Your task to perform on an android device: Turn on the flashlight Image 0: 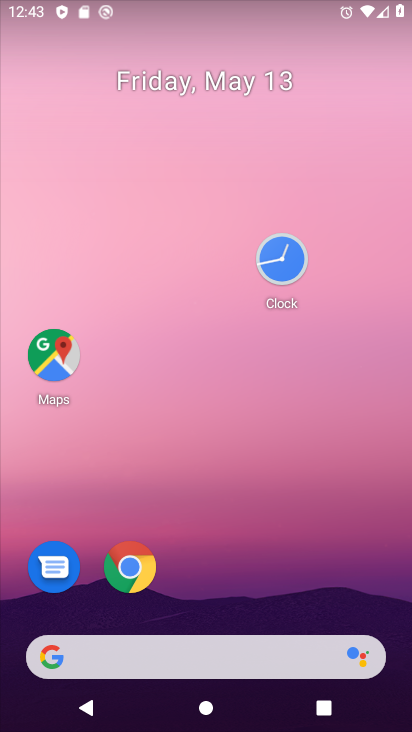
Step 0: click (249, 99)
Your task to perform on an android device: Turn on the flashlight Image 1: 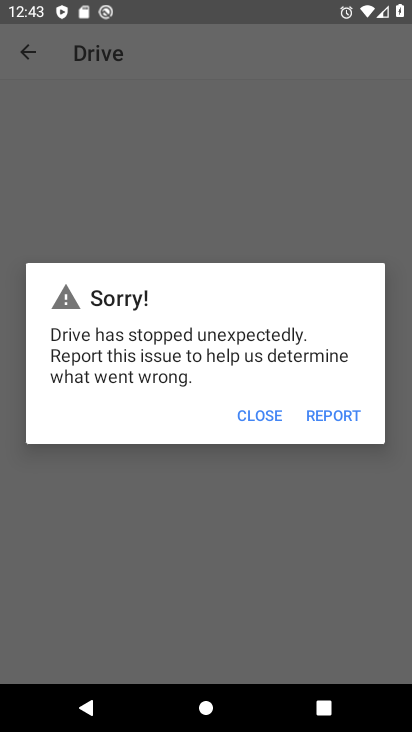
Step 1: press home button
Your task to perform on an android device: Turn on the flashlight Image 2: 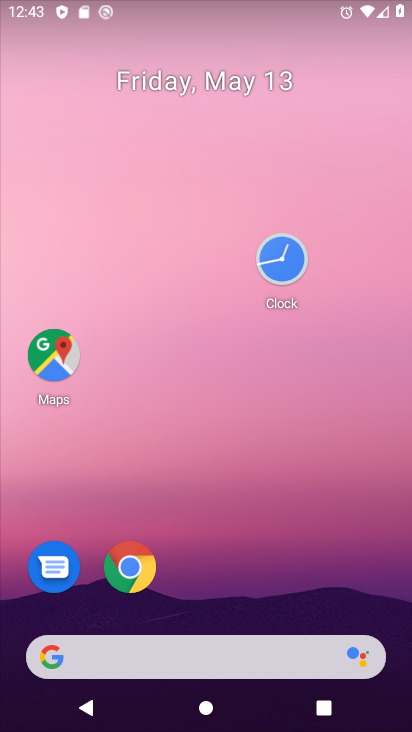
Step 2: drag from (282, 556) to (276, 33)
Your task to perform on an android device: Turn on the flashlight Image 3: 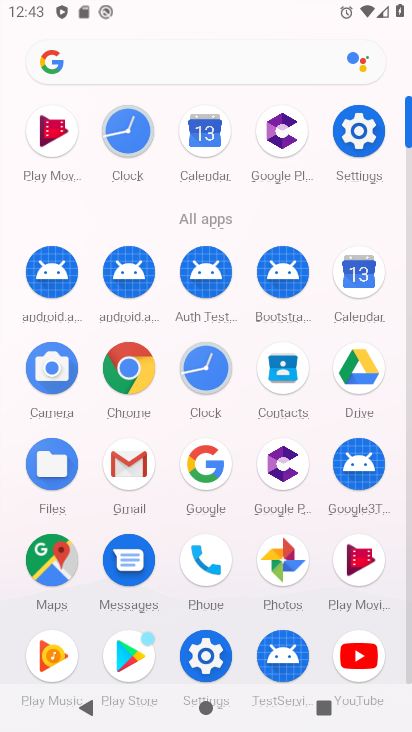
Step 3: click (349, 167)
Your task to perform on an android device: Turn on the flashlight Image 4: 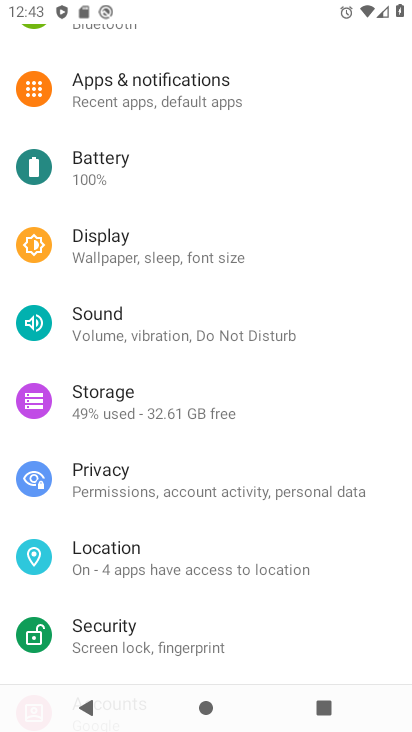
Step 4: click (181, 587)
Your task to perform on an android device: Turn on the flashlight Image 5: 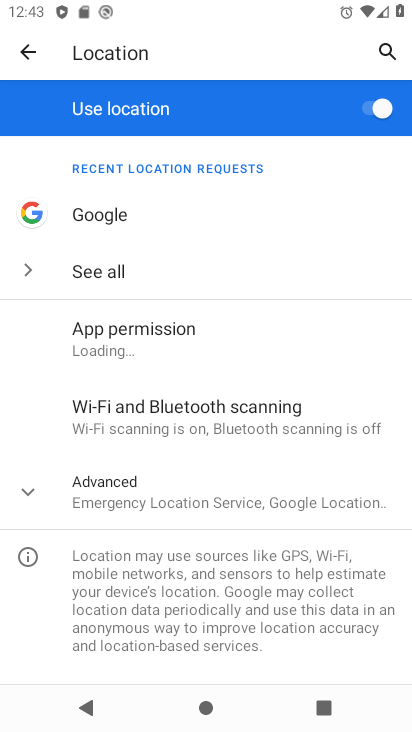
Step 5: task complete